Your task to perform on an android device: add a label to a message in the gmail app Image 0: 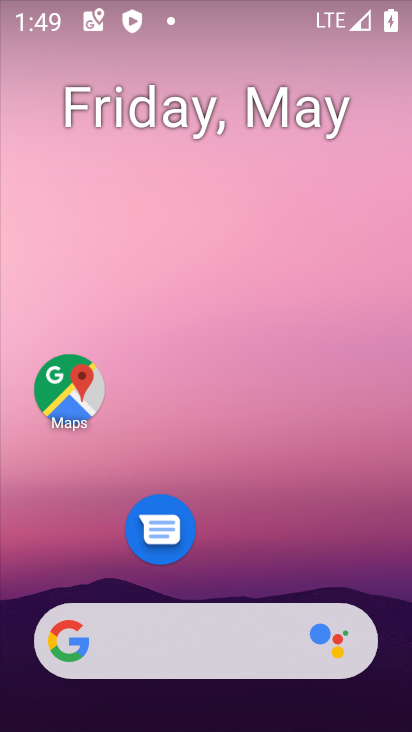
Step 0: drag from (205, 539) to (234, 250)
Your task to perform on an android device: add a label to a message in the gmail app Image 1: 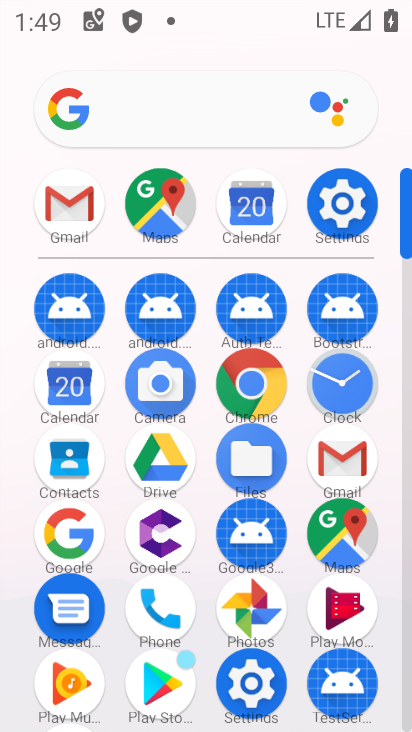
Step 1: click (353, 455)
Your task to perform on an android device: add a label to a message in the gmail app Image 2: 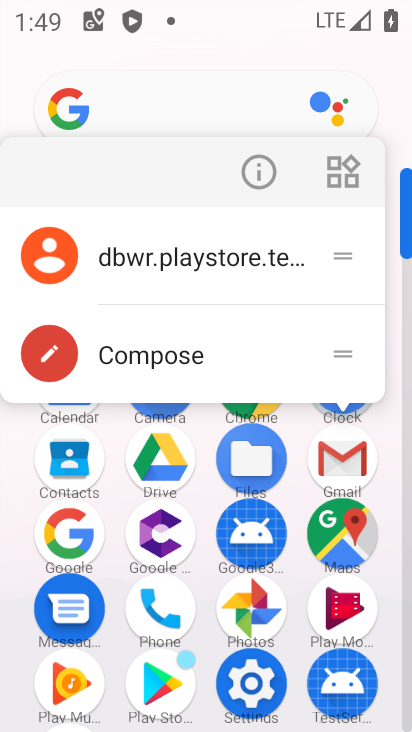
Step 2: click (278, 166)
Your task to perform on an android device: add a label to a message in the gmail app Image 3: 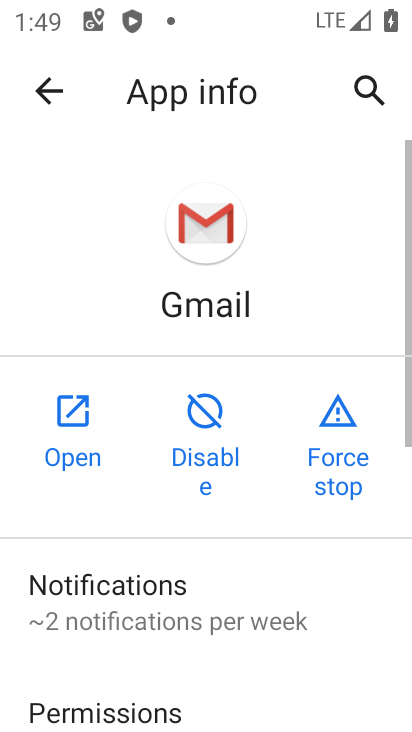
Step 3: click (78, 403)
Your task to perform on an android device: add a label to a message in the gmail app Image 4: 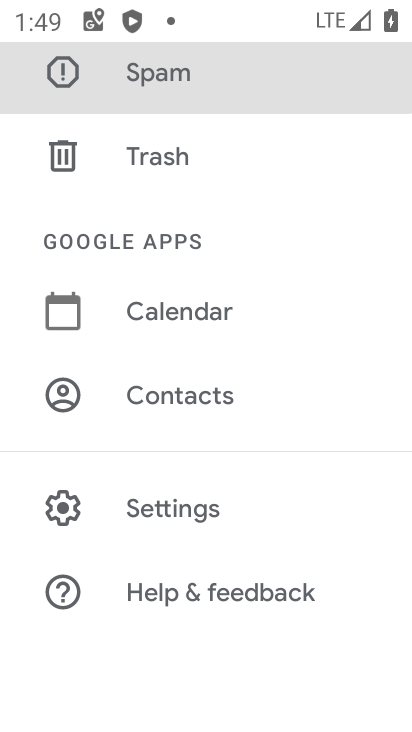
Step 4: task complete